Your task to perform on an android device: Turn off the flashlight Image 0: 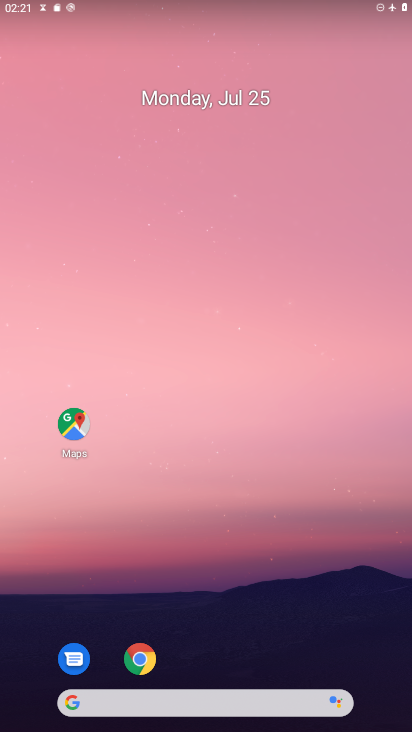
Step 0: drag from (180, 658) to (179, 80)
Your task to perform on an android device: Turn off the flashlight Image 1: 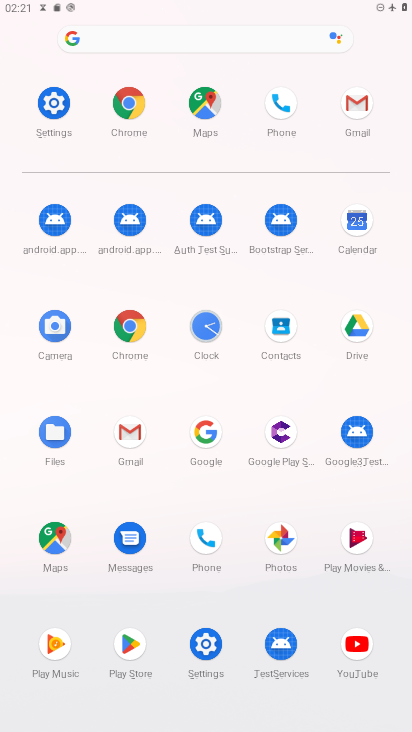
Step 1: click (59, 96)
Your task to perform on an android device: Turn off the flashlight Image 2: 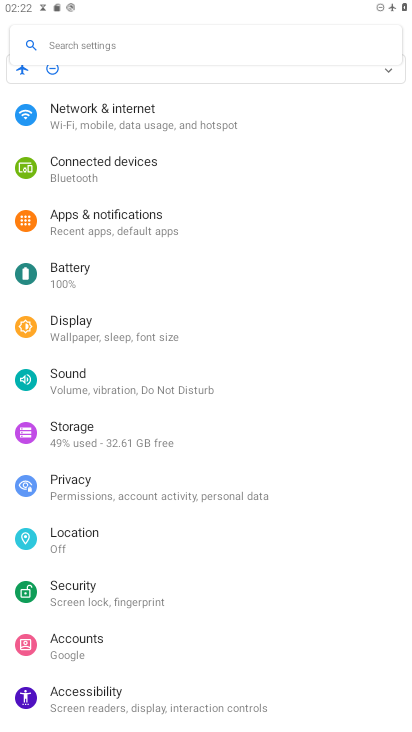
Step 2: task complete